Your task to perform on an android device: Go to CNN.com Image 0: 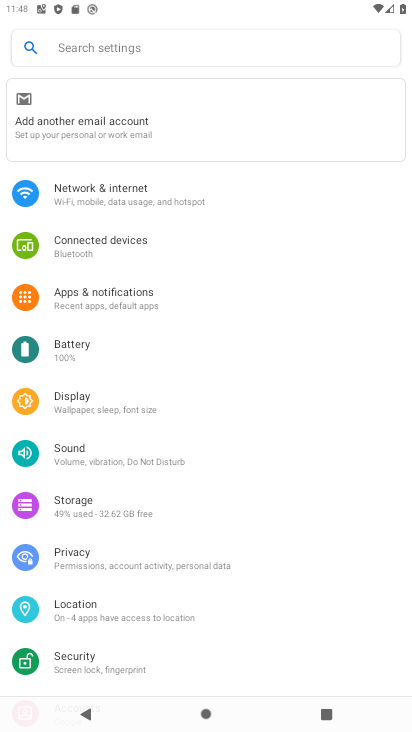
Step 0: press home button
Your task to perform on an android device: Go to CNN.com Image 1: 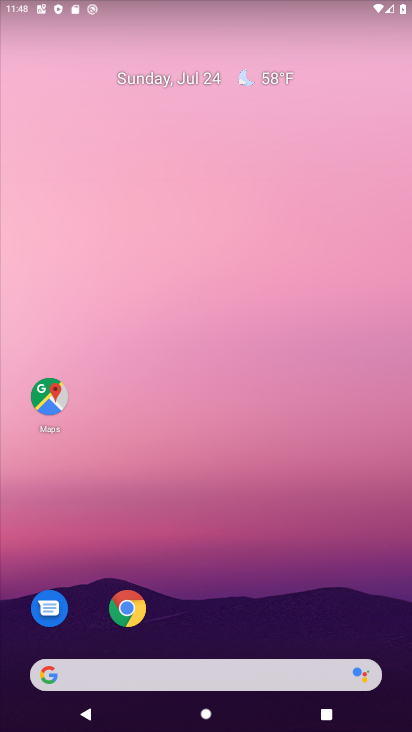
Step 1: click (131, 620)
Your task to perform on an android device: Go to CNN.com Image 2: 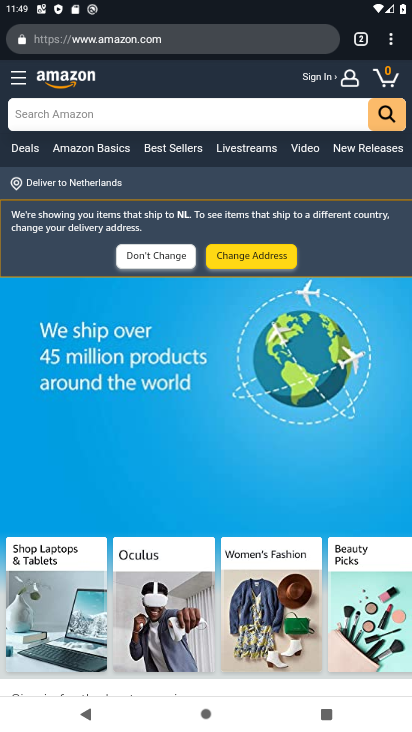
Step 2: click (169, 34)
Your task to perform on an android device: Go to CNN.com Image 3: 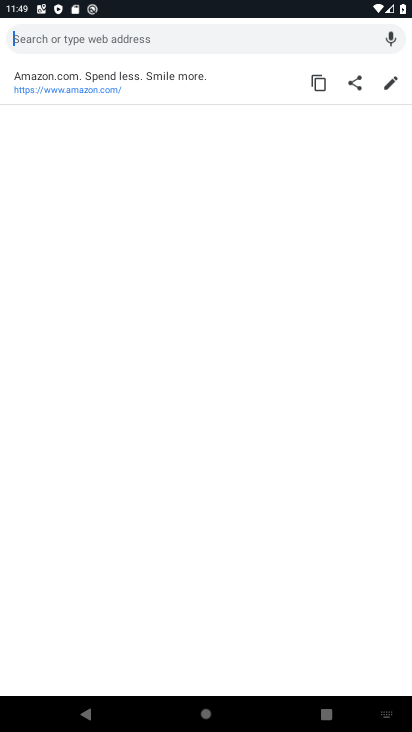
Step 3: type "cnn.com"
Your task to perform on an android device: Go to CNN.com Image 4: 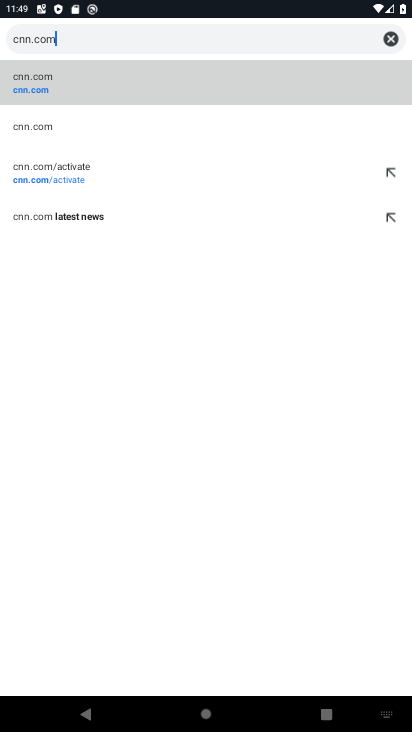
Step 4: click (262, 89)
Your task to perform on an android device: Go to CNN.com Image 5: 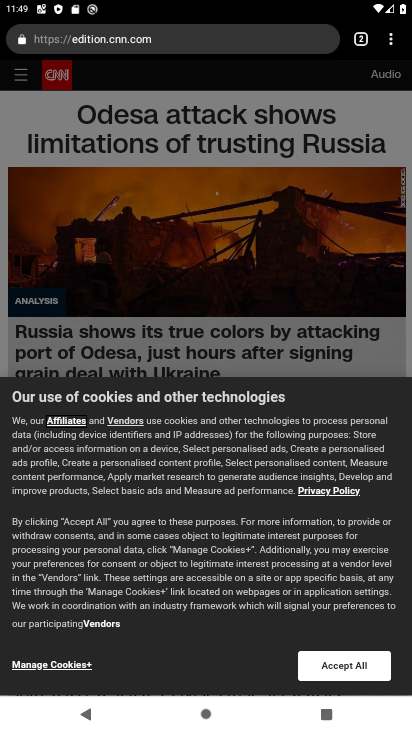
Step 5: task complete